Your task to perform on an android device: turn on airplane mode Image 0: 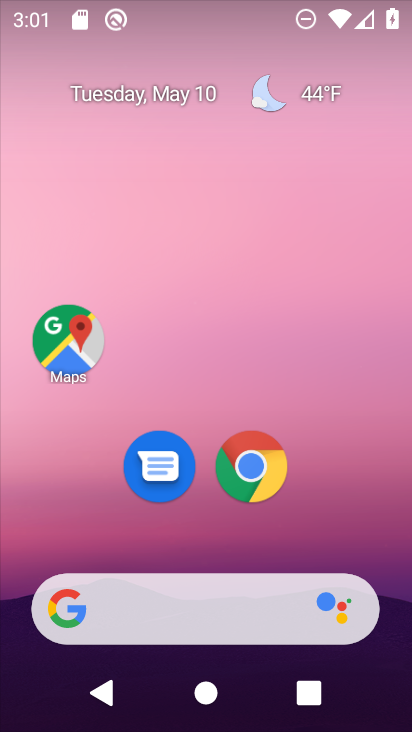
Step 0: drag from (317, 524) to (312, 42)
Your task to perform on an android device: turn on airplane mode Image 1: 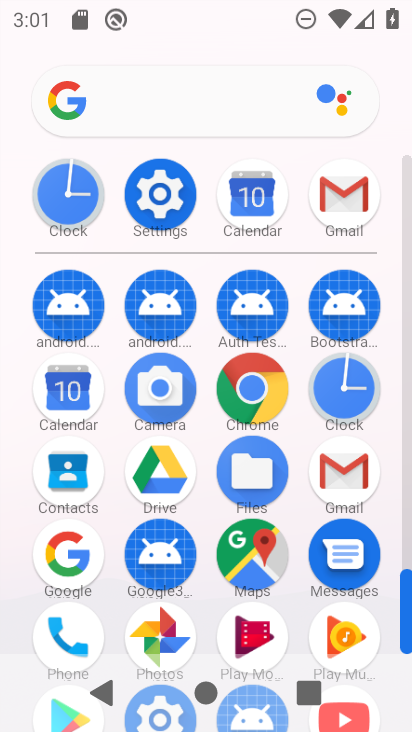
Step 1: click (144, 204)
Your task to perform on an android device: turn on airplane mode Image 2: 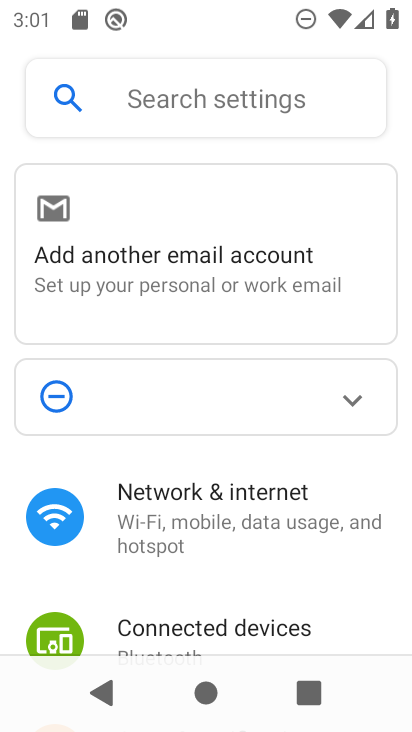
Step 2: click (205, 551)
Your task to perform on an android device: turn on airplane mode Image 3: 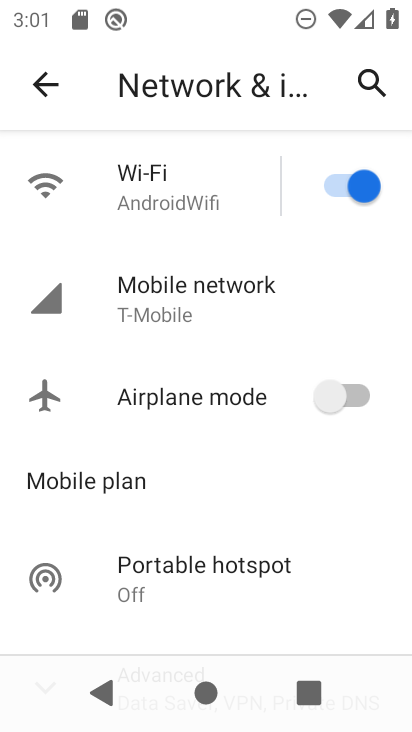
Step 3: click (356, 395)
Your task to perform on an android device: turn on airplane mode Image 4: 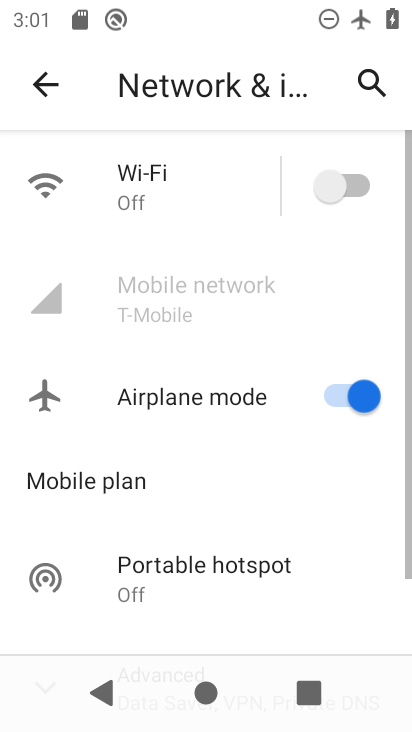
Step 4: task complete